Your task to perform on an android device: open app "Speedtest by Ookla" (install if not already installed), go to login, and select forgot password Image 0: 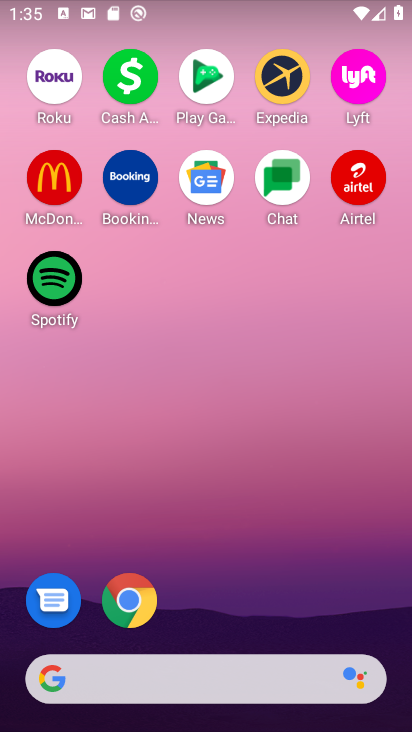
Step 0: drag from (272, 620) to (245, 123)
Your task to perform on an android device: open app "Speedtest by Ookla" (install if not already installed), go to login, and select forgot password Image 1: 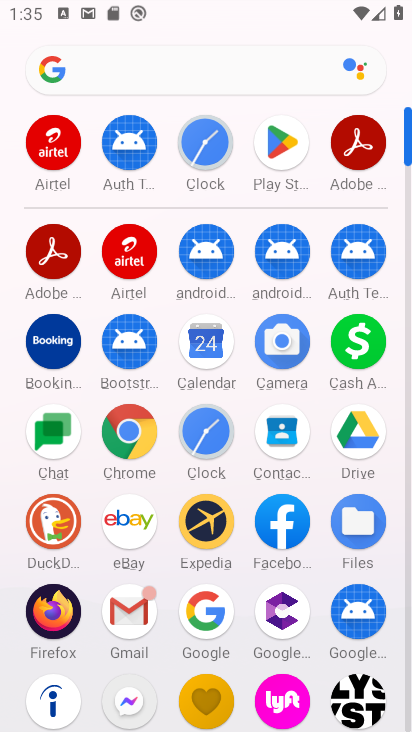
Step 1: click (265, 126)
Your task to perform on an android device: open app "Speedtest by Ookla" (install if not already installed), go to login, and select forgot password Image 2: 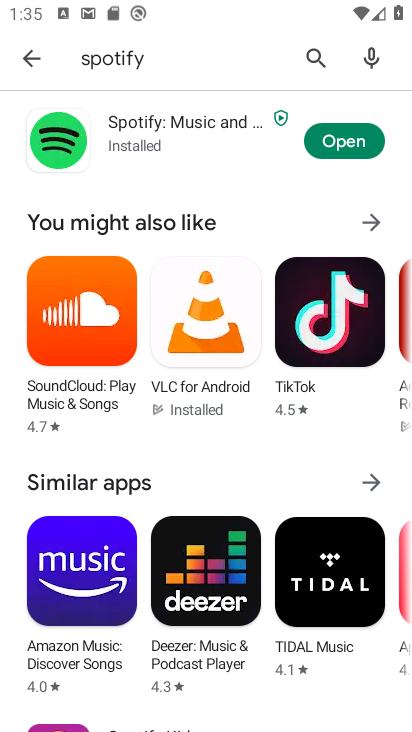
Step 2: click (300, 67)
Your task to perform on an android device: open app "Speedtest by Ookla" (install if not already installed), go to login, and select forgot password Image 3: 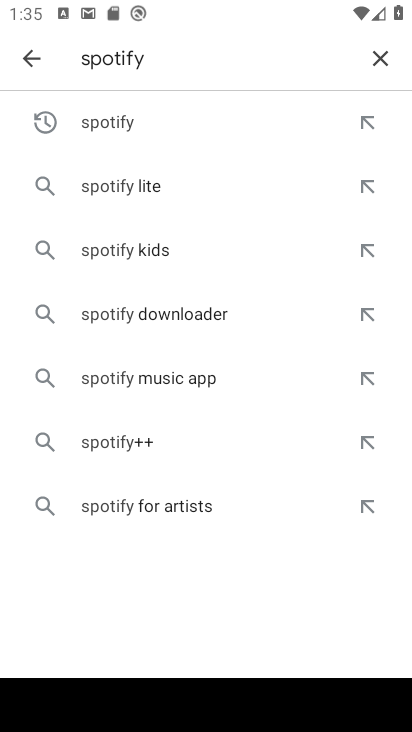
Step 3: click (366, 55)
Your task to perform on an android device: open app "Speedtest by Ookla" (install if not already installed), go to login, and select forgot password Image 4: 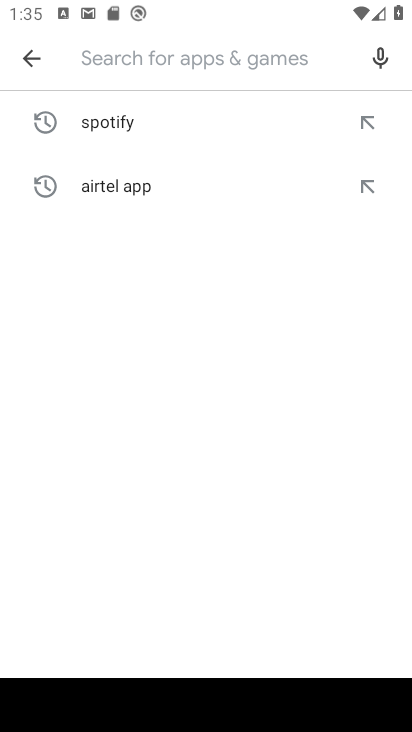
Step 4: type "speedity"
Your task to perform on an android device: open app "Speedtest by Ookla" (install if not already installed), go to login, and select forgot password Image 5: 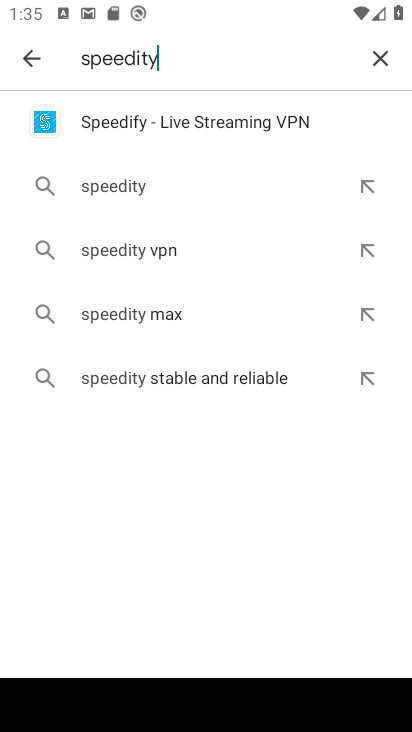
Step 5: click (376, 64)
Your task to perform on an android device: open app "Speedtest by Ookla" (install if not already installed), go to login, and select forgot password Image 6: 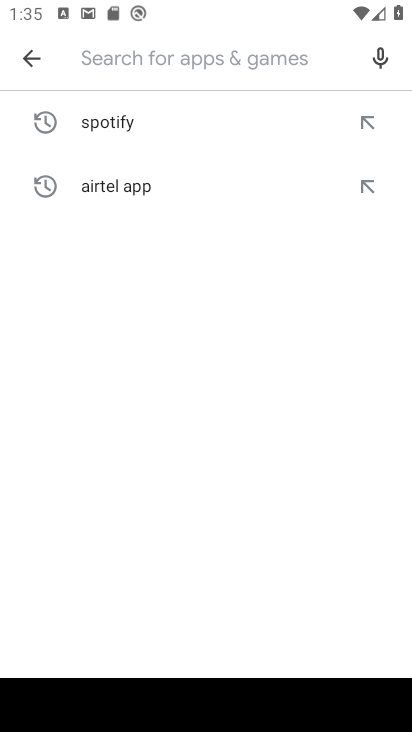
Step 6: type "spotify"
Your task to perform on an android device: open app "Speedtest by Ookla" (install if not already installed), go to login, and select forgot password Image 7: 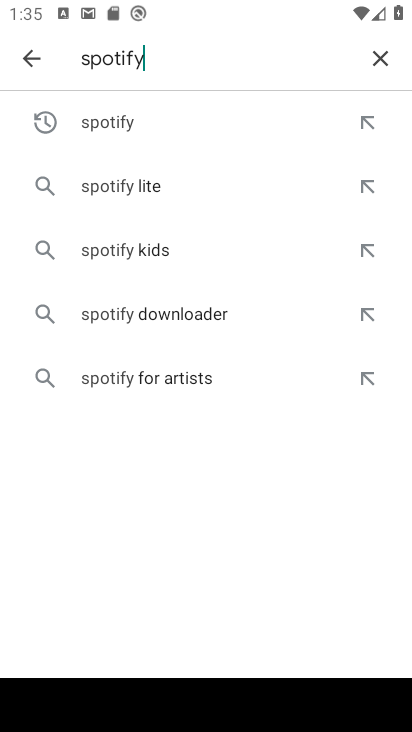
Step 7: click (124, 127)
Your task to perform on an android device: open app "Speedtest by Ookla" (install if not already installed), go to login, and select forgot password Image 8: 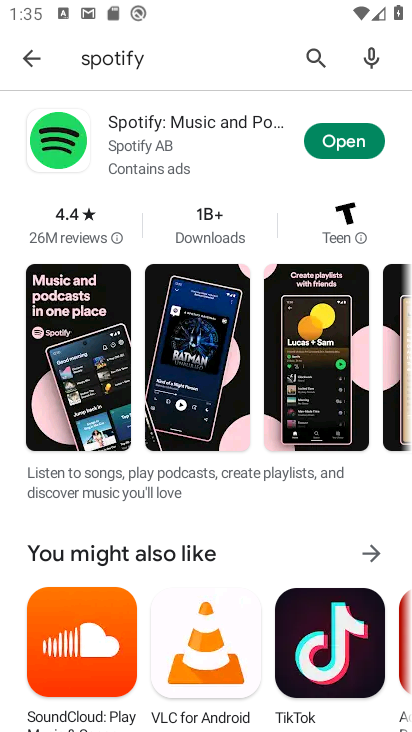
Step 8: click (313, 137)
Your task to perform on an android device: open app "Speedtest by Ookla" (install if not already installed), go to login, and select forgot password Image 9: 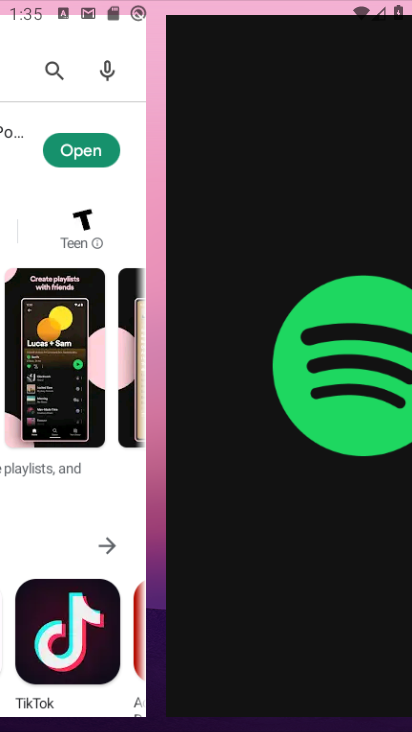
Step 9: task complete